Your task to perform on an android device: turn on location history Image 0: 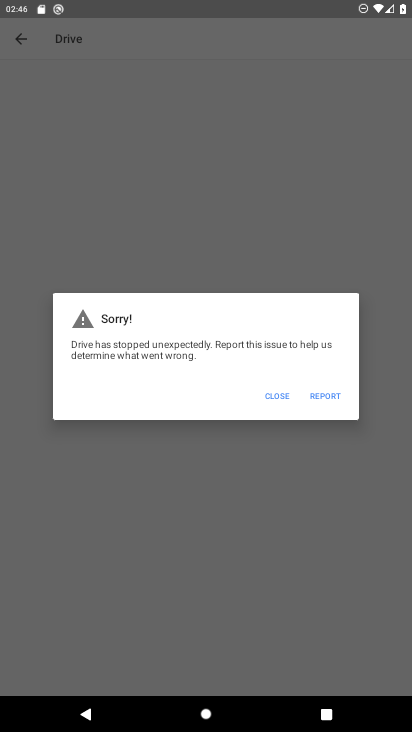
Step 0: press home button
Your task to perform on an android device: turn on location history Image 1: 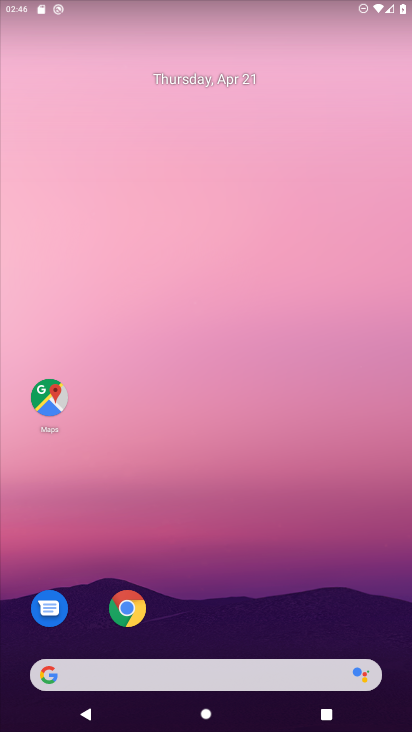
Step 1: drag from (211, 630) to (215, 194)
Your task to perform on an android device: turn on location history Image 2: 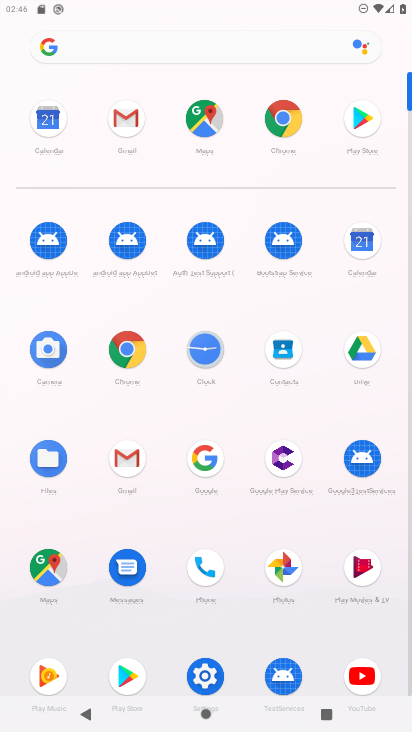
Step 2: click (208, 675)
Your task to perform on an android device: turn on location history Image 3: 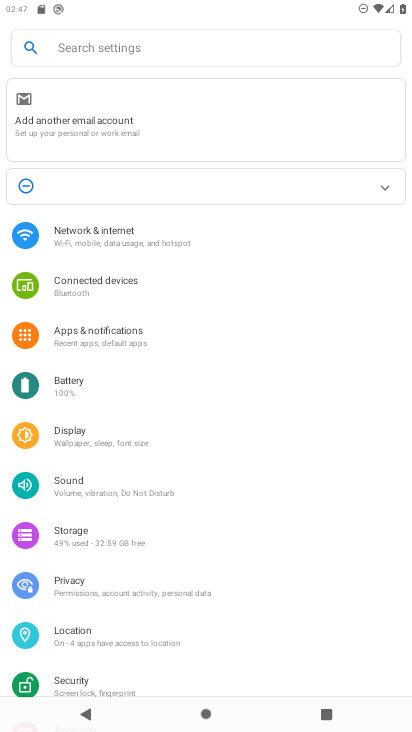
Step 3: click (102, 628)
Your task to perform on an android device: turn on location history Image 4: 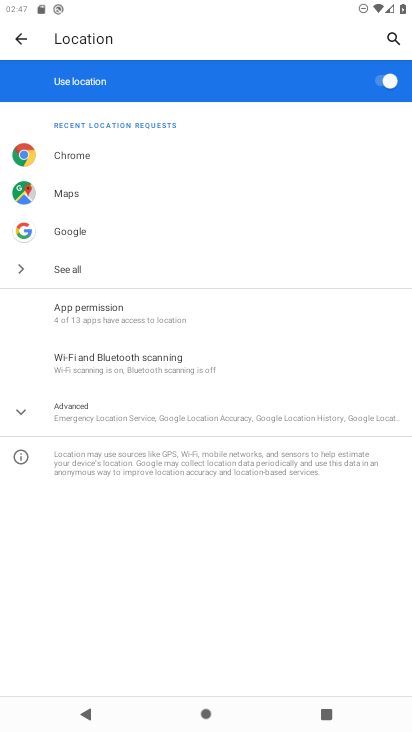
Step 4: click (112, 414)
Your task to perform on an android device: turn on location history Image 5: 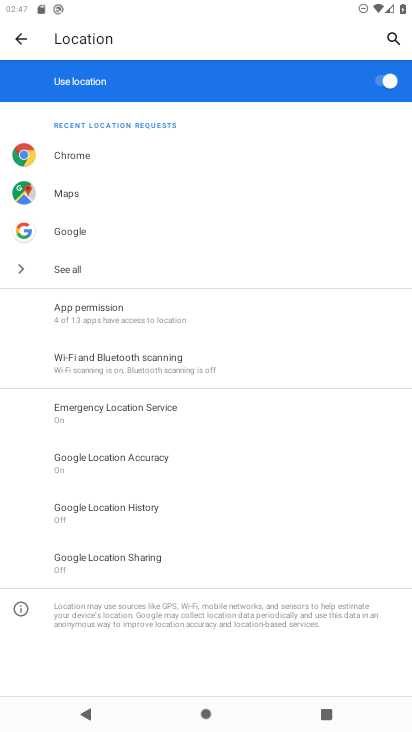
Step 5: click (159, 505)
Your task to perform on an android device: turn on location history Image 6: 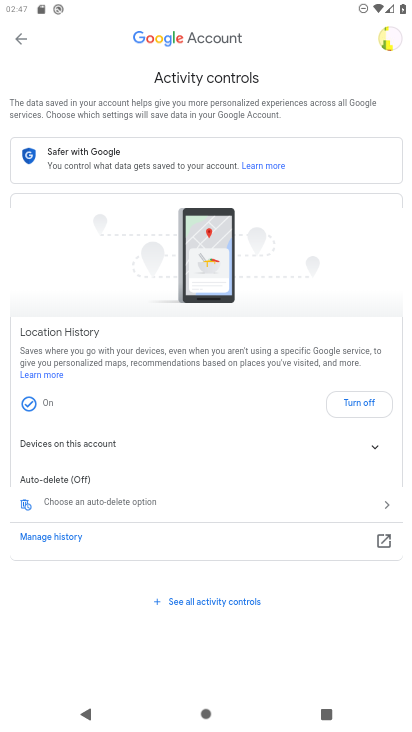
Step 6: click (26, 401)
Your task to perform on an android device: turn on location history Image 7: 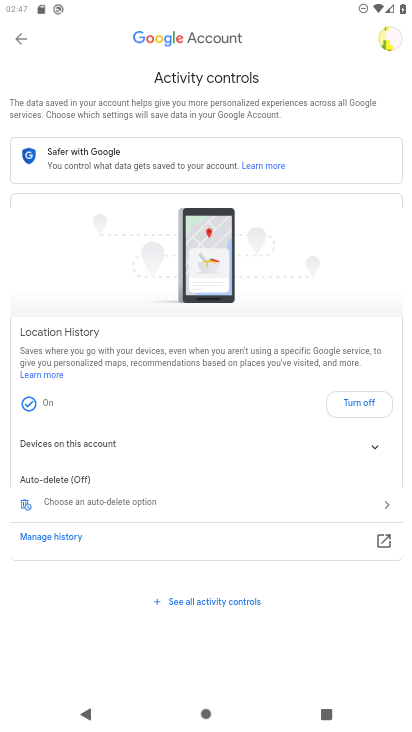
Step 7: click (26, 401)
Your task to perform on an android device: turn on location history Image 8: 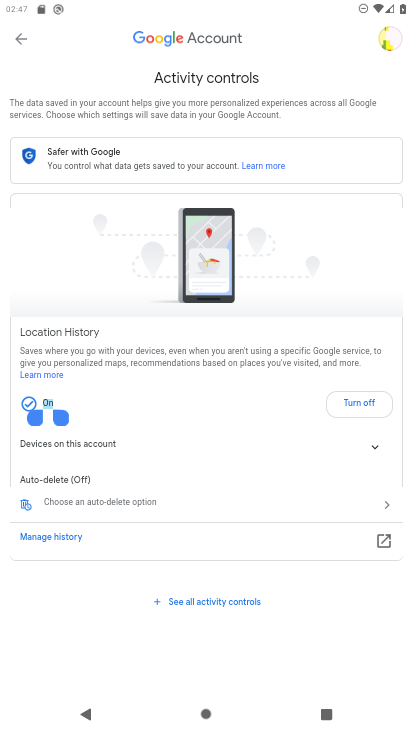
Step 8: click (31, 403)
Your task to perform on an android device: turn on location history Image 9: 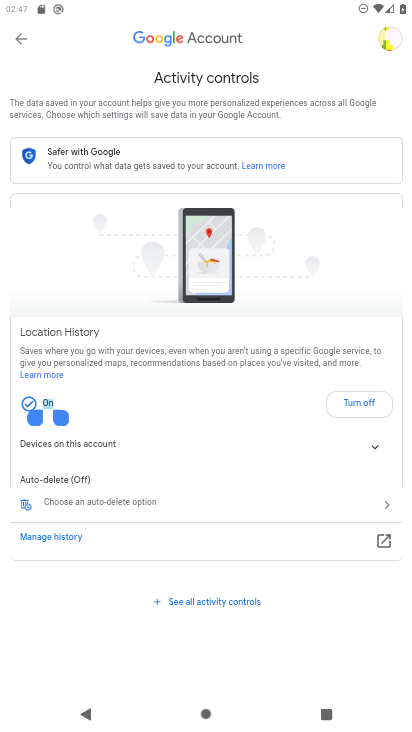
Step 9: click (366, 404)
Your task to perform on an android device: turn on location history Image 10: 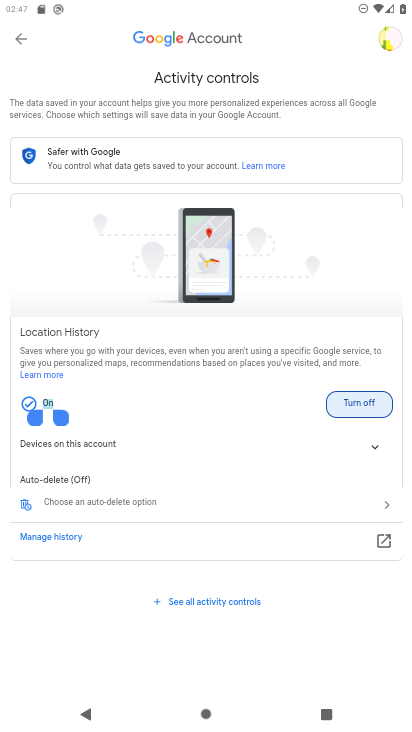
Step 10: click (359, 401)
Your task to perform on an android device: turn on location history Image 11: 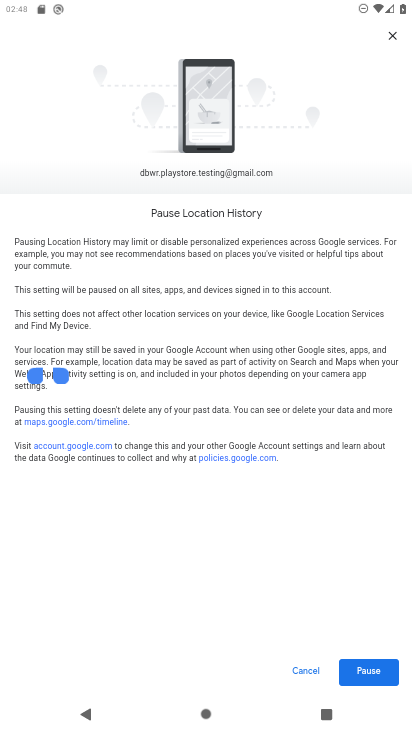
Step 11: click (312, 669)
Your task to perform on an android device: turn on location history Image 12: 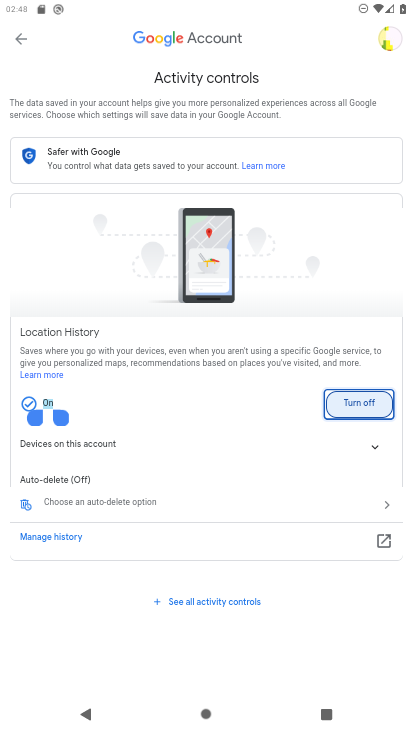
Step 12: task complete